Your task to perform on an android device: Go to Reddit.com Image 0: 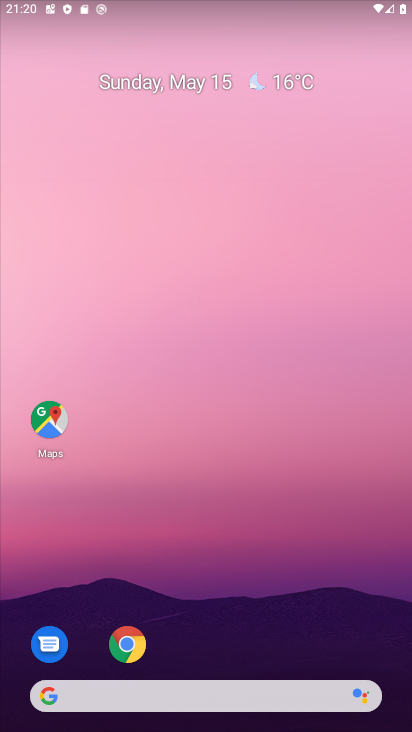
Step 0: click (119, 643)
Your task to perform on an android device: Go to Reddit.com Image 1: 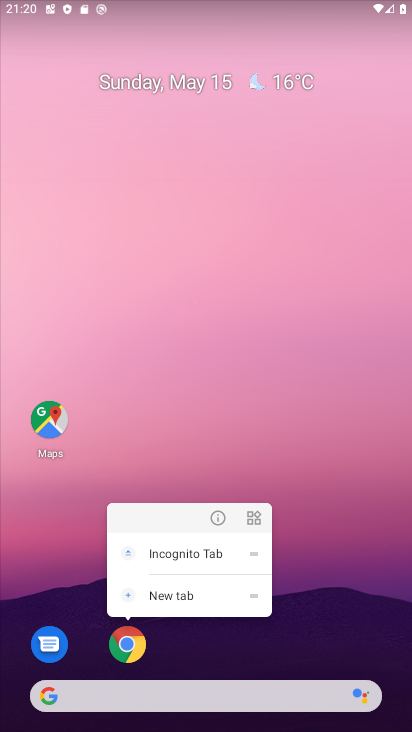
Step 1: click (125, 643)
Your task to perform on an android device: Go to Reddit.com Image 2: 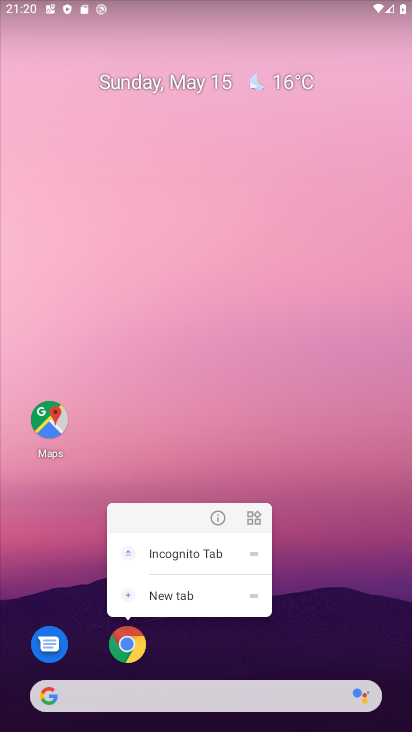
Step 2: click (125, 643)
Your task to perform on an android device: Go to Reddit.com Image 3: 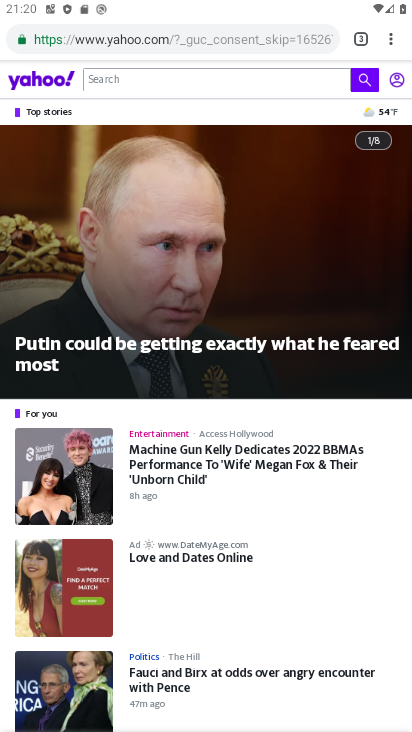
Step 3: click (364, 35)
Your task to perform on an android device: Go to Reddit.com Image 4: 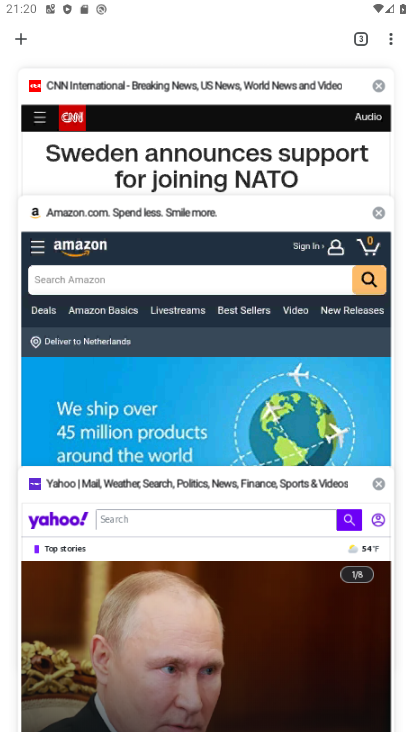
Step 4: click (35, 27)
Your task to perform on an android device: Go to Reddit.com Image 5: 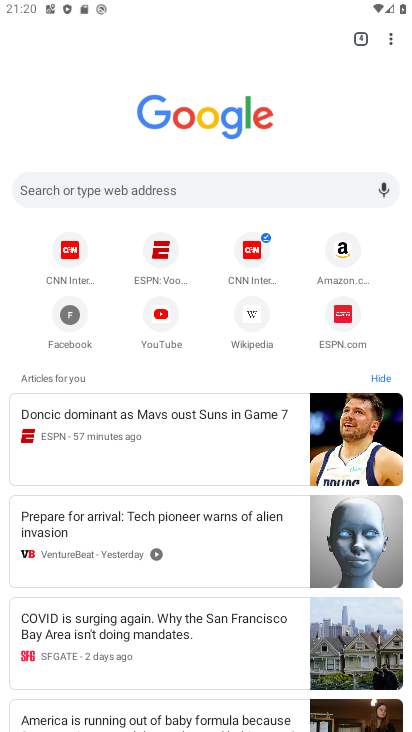
Step 5: click (178, 195)
Your task to perform on an android device: Go to Reddit.com Image 6: 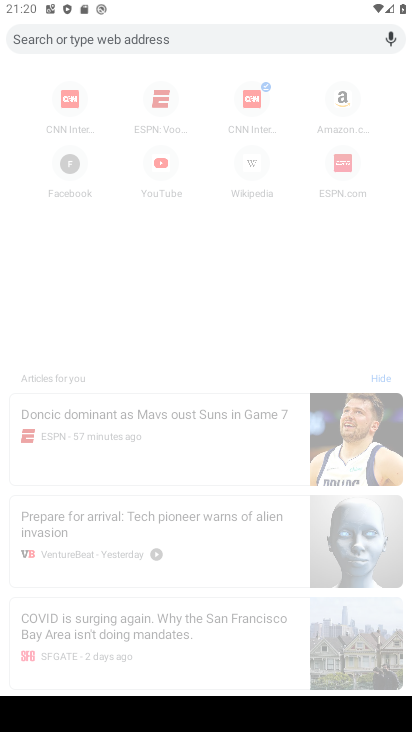
Step 6: type "reddit.com"
Your task to perform on an android device: Go to Reddit.com Image 7: 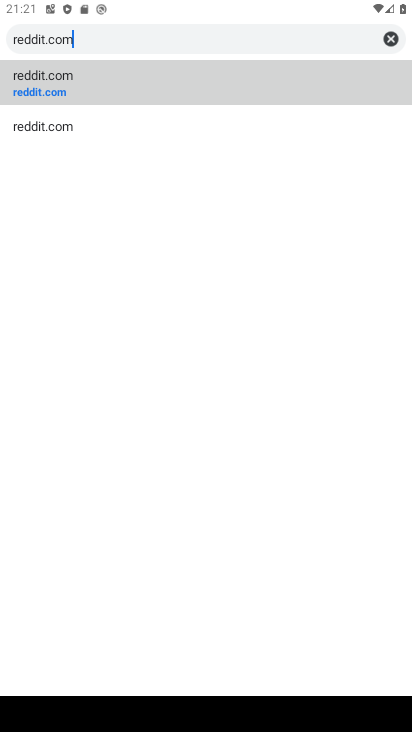
Step 7: click (122, 72)
Your task to perform on an android device: Go to Reddit.com Image 8: 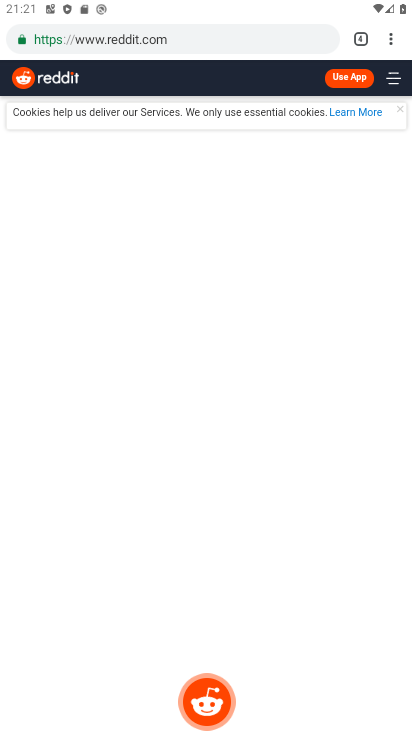
Step 8: task complete